Your task to perform on an android device: turn vacation reply on in the gmail app Image 0: 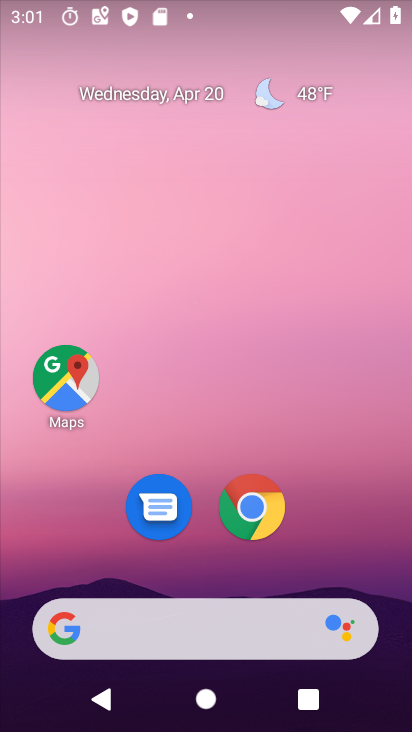
Step 0: drag from (207, 627) to (156, 103)
Your task to perform on an android device: turn vacation reply on in the gmail app Image 1: 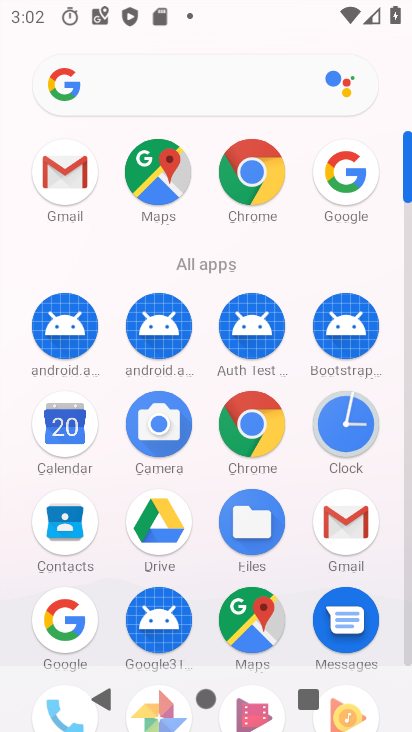
Step 1: click (347, 542)
Your task to perform on an android device: turn vacation reply on in the gmail app Image 2: 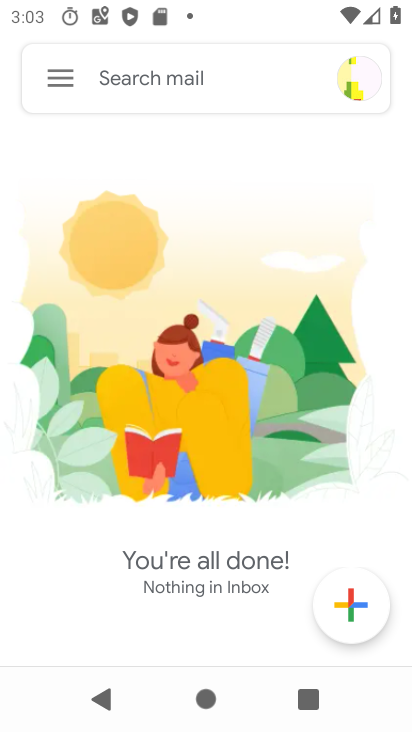
Step 2: click (54, 78)
Your task to perform on an android device: turn vacation reply on in the gmail app Image 3: 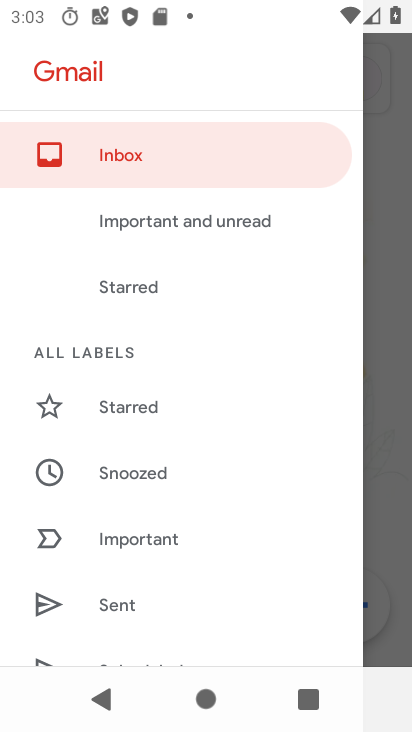
Step 3: drag from (179, 617) to (140, 142)
Your task to perform on an android device: turn vacation reply on in the gmail app Image 4: 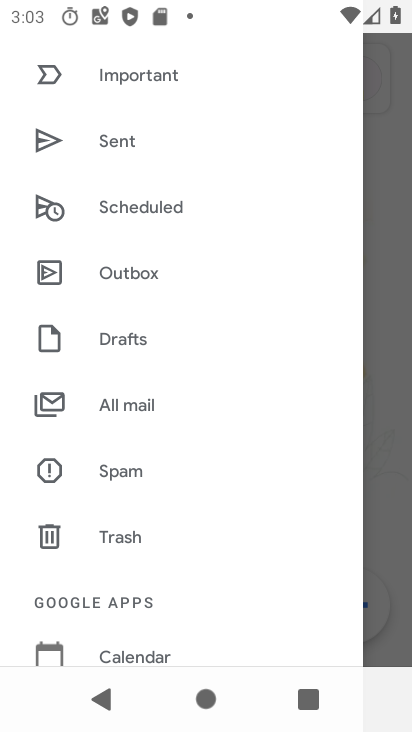
Step 4: drag from (178, 639) to (144, 191)
Your task to perform on an android device: turn vacation reply on in the gmail app Image 5: 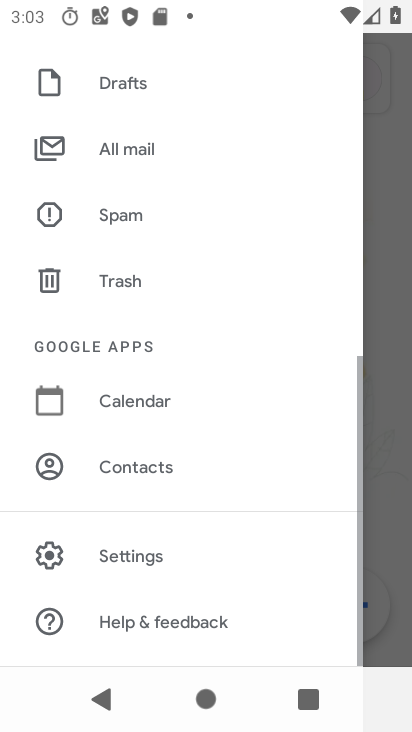
Step 5: click (148, 561)
Your task to perform on an android device: turn vacation reply on in the gmail app Image 6: 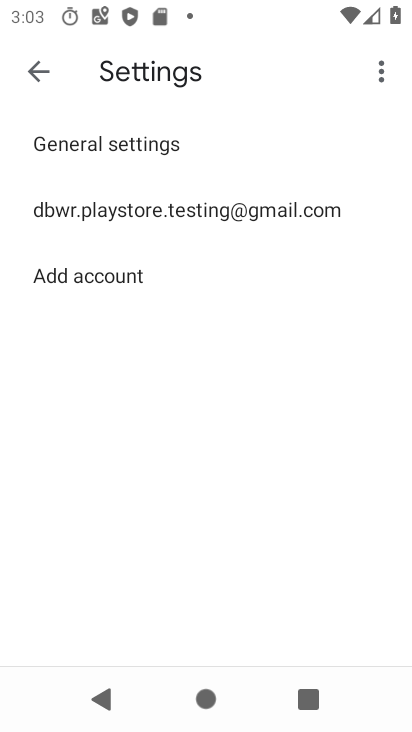
Step 6: click (208, 215)
Your task to perform on an android device: turn vacation reply on in the gmail app Image 7: 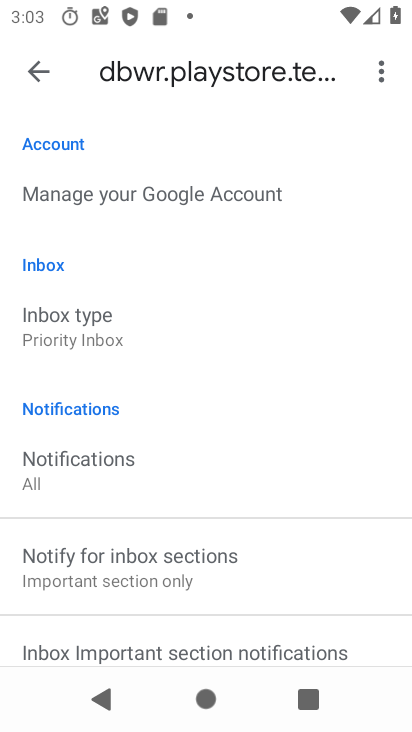
Step 7: drag from (283, 629) to (255, 203)
Your task to perform on an android device: turn vacation reply on in the gmail app Image 8: 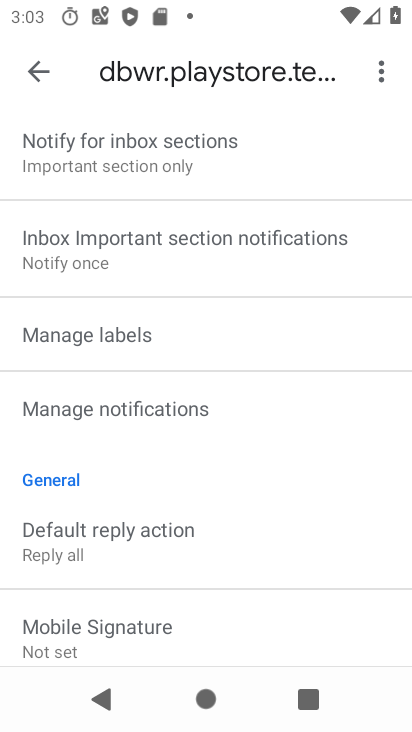
Step 8: drag from (211, 604) to (176, 203)
Your task to perform on an android device: turn vacation reply on in the gmail app Image 9: 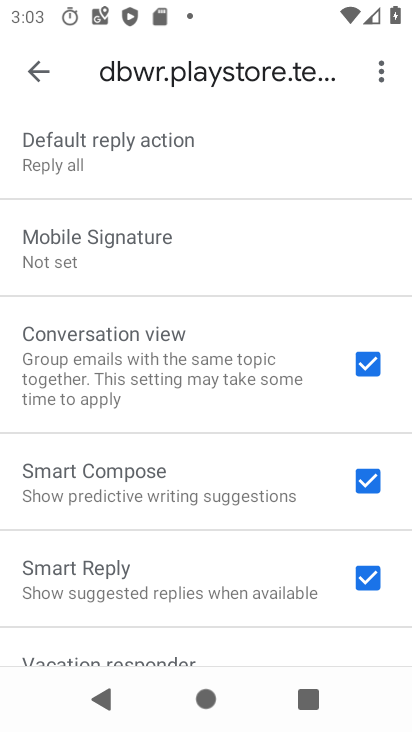
Step 9: drag from (202, 610) to (131, 107)
Your task to perform on an android device: turn vacation reply on in the gmail app Image 10: 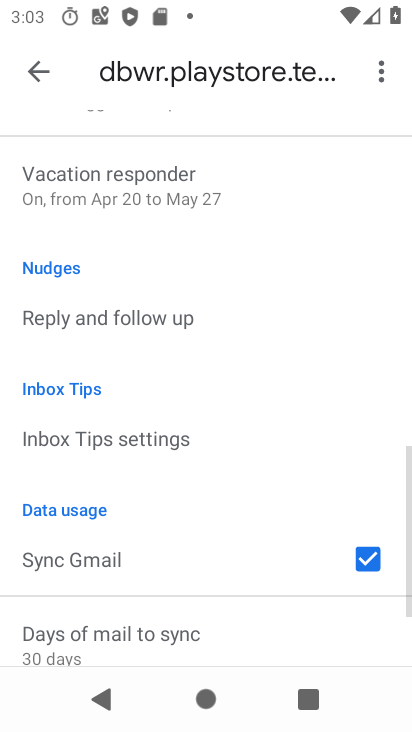
Step 10: click (122, 206)
Your task to perform on an android device: turn vacation reply on in the gmail app Image 11: 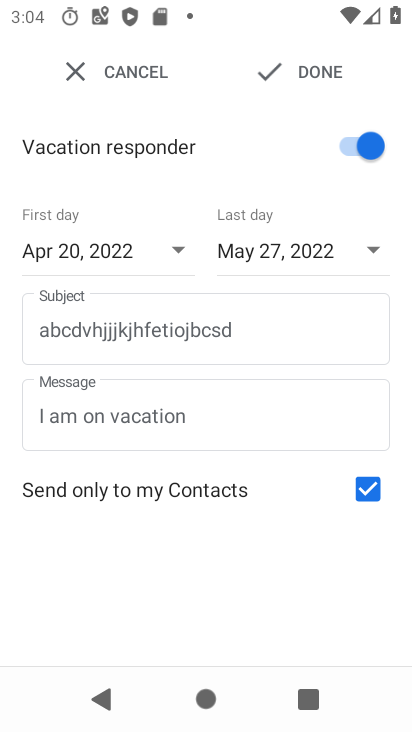
Step 11: click (321, 77)
Your task to perform on an android device: turn vacation reply on in the gmail app Image 12: 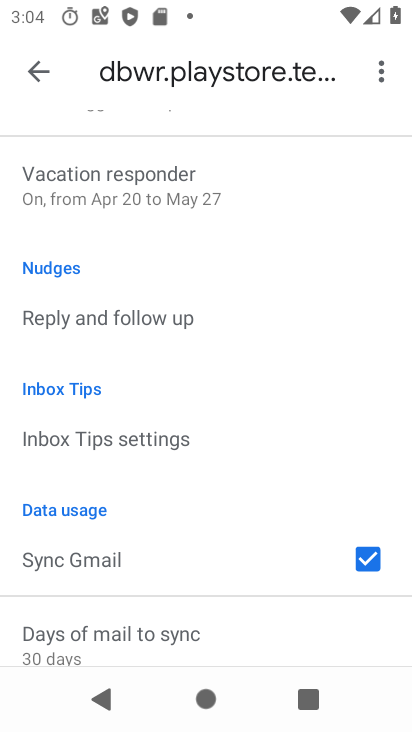
Step 12: task complete